Your task to perform on an android device: delete the emails in spam in the gmail app Image 0: 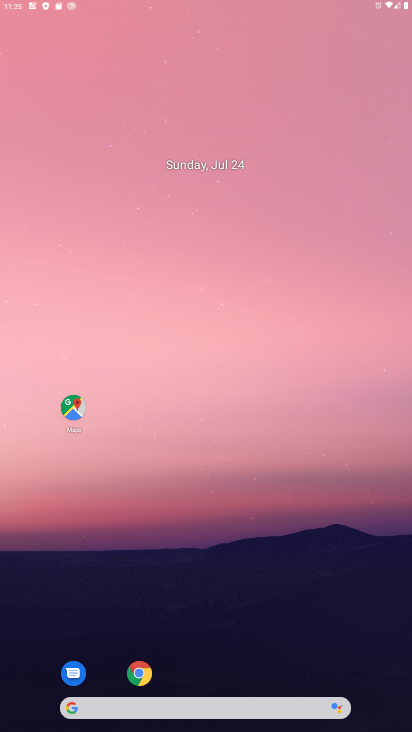
Step 0: drag from (310, 640) to (277, 180)
Your task to perform on an android device: delete the emails in spam in the gmail app Image 1: 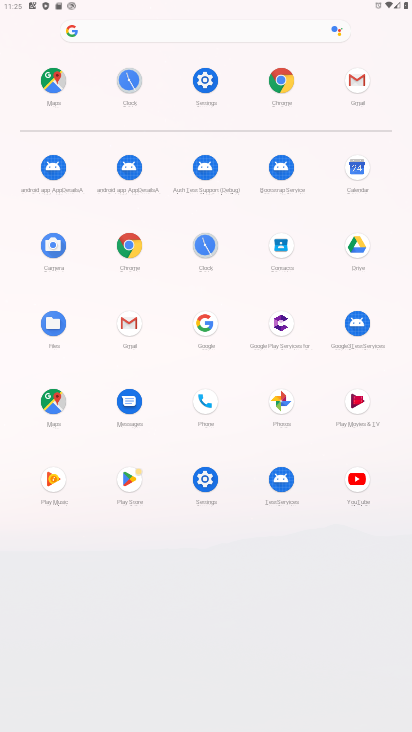
Step 1: click (349, 81)
Your task to perform on an android device: delete the emails in spam in the gmail app Image 2: 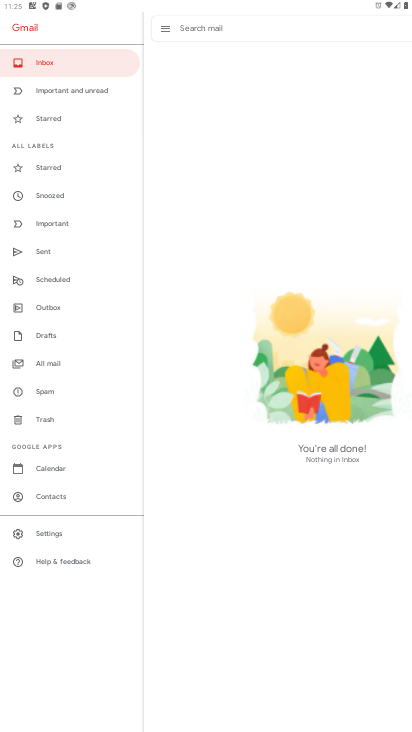
Step 2: click (50, 390)
Your task to perform on an android device: delete the emails in spam in the gmail app Image 3: 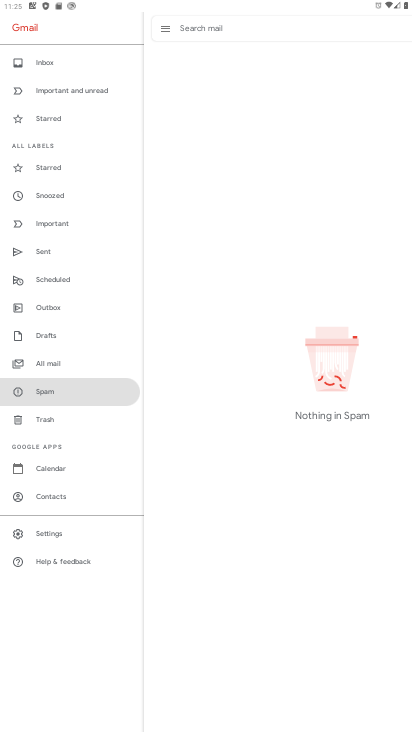
Step 3: task complete